Your task to perform on an android device: Search for flights from NYC to Paris Image 0: 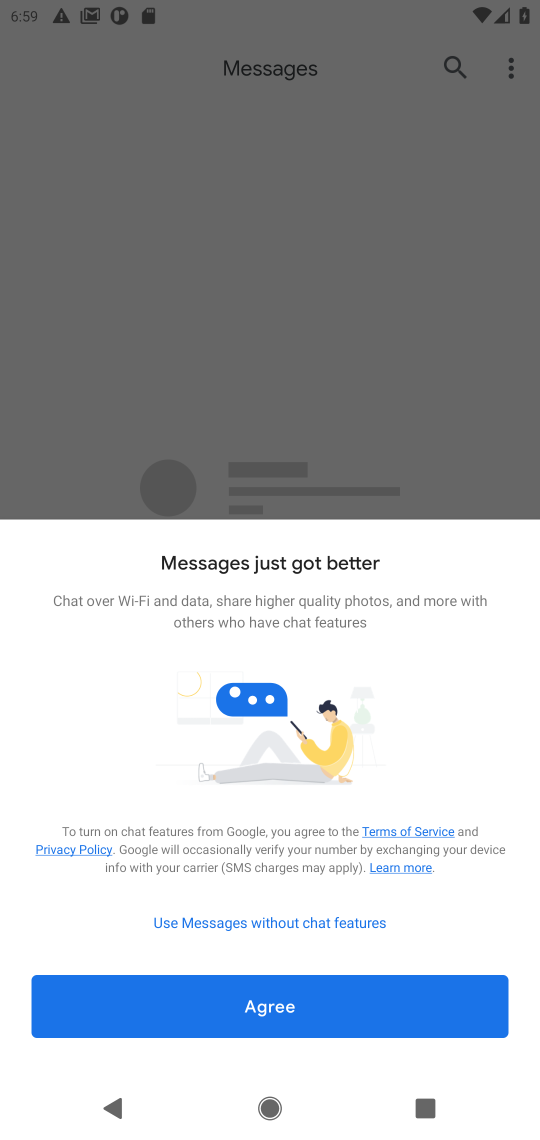
Step 0: press home button
Your task to perform on an android device: Search for flights from NYC to Paris Image 1: 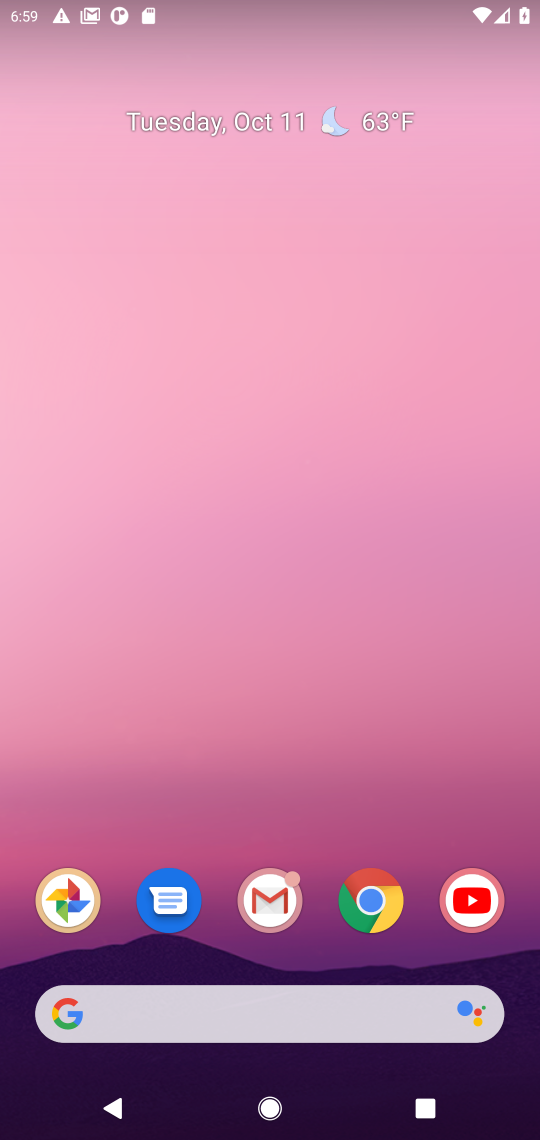
Step 1: click (379, 897)
Your task to perform on an android device: Search for flights from NYC to Paris Image 2: 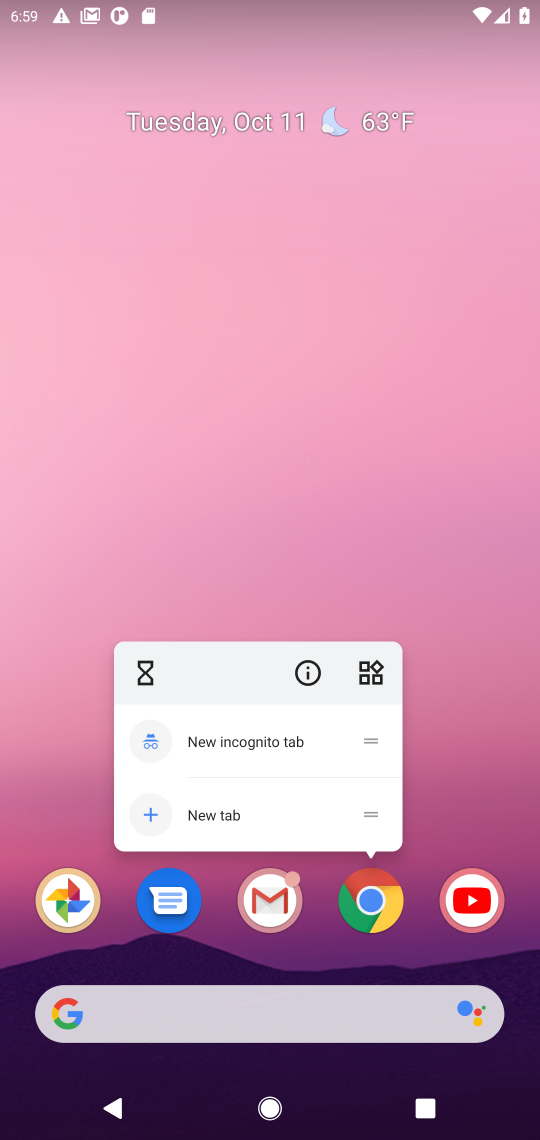
Step 2: click (356, 923)
Your task to perform on an android device: Search for flights from NYC to Paris Image 3: 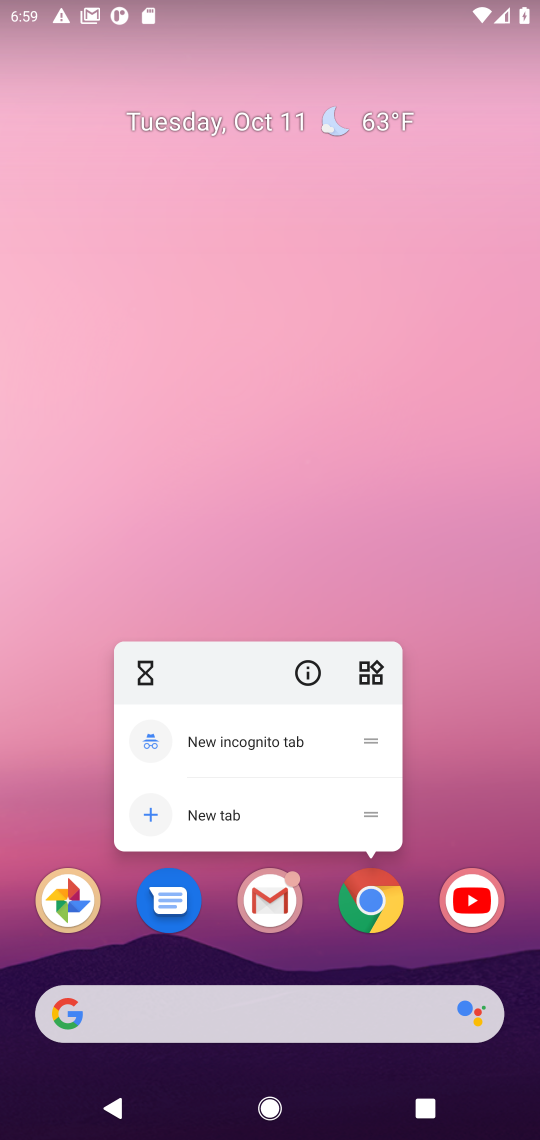
Step 3: click (362, 908)
Your task to perform on an android device: Search for flights from NYC to Paris Image 4: 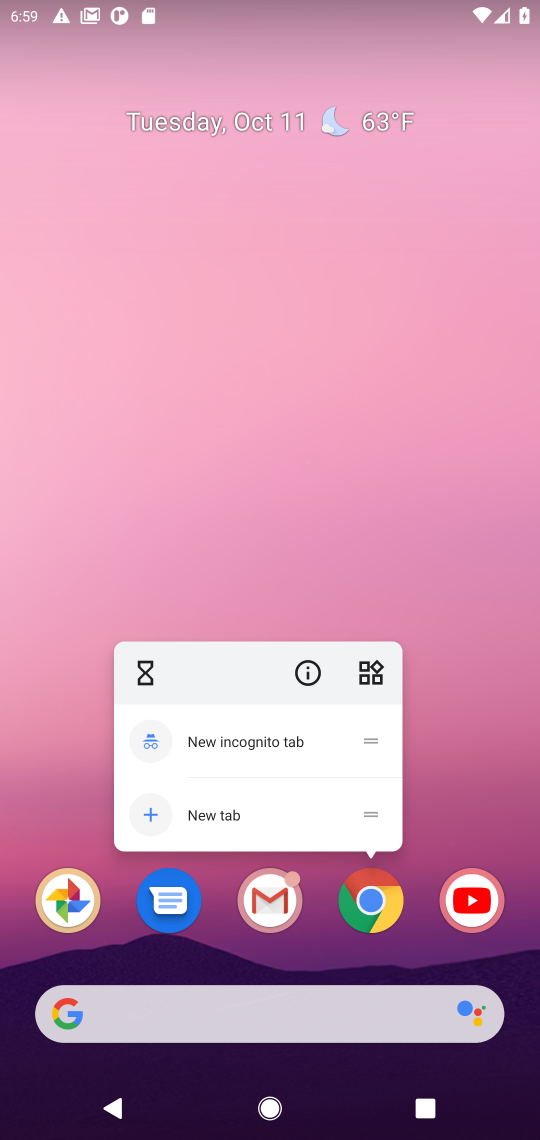
Step 4: click (362, 913)
Your task to perform on an android device: Search for flights from NYC to Paris Image 5: 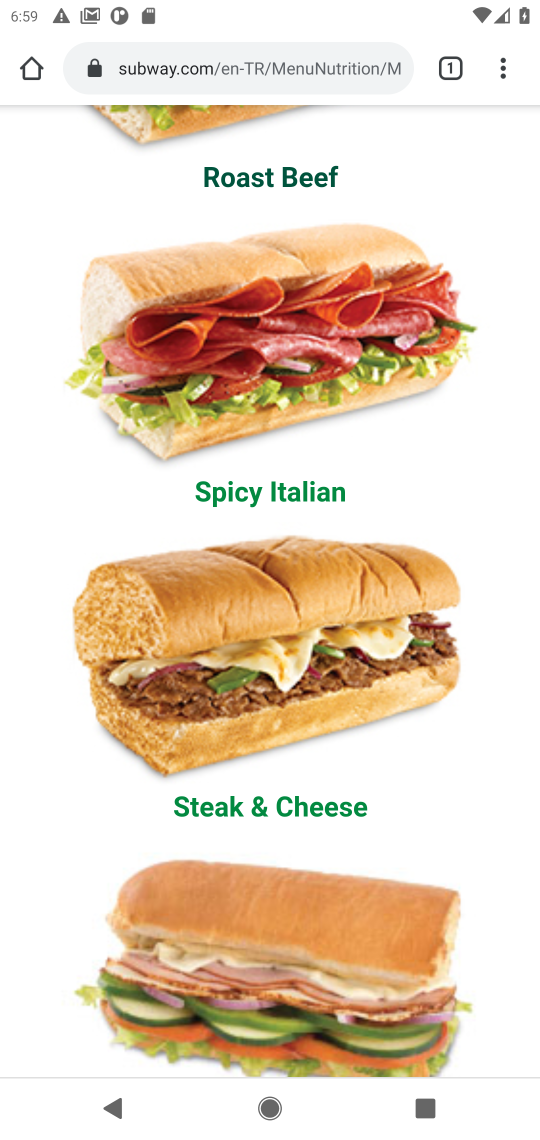
Step 5: click (327, 69)
Your task to perform on an android device: Search for flights from NYC to Paris Image 6: 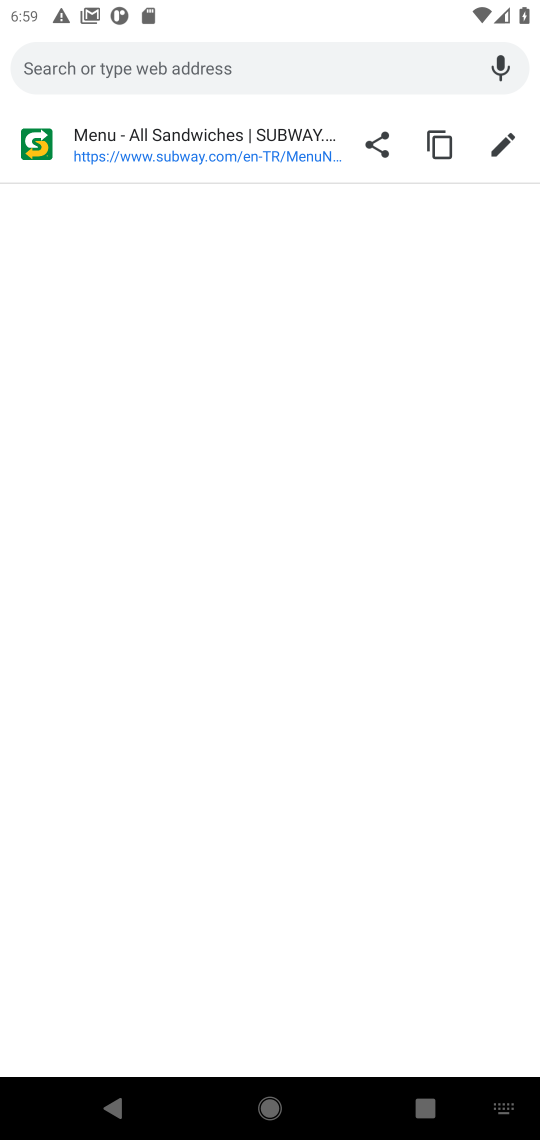
Step 6: type " flights from NYC to Paris"
Your task to perform on an android device: Search for flights from NYC to Paris Image 7: 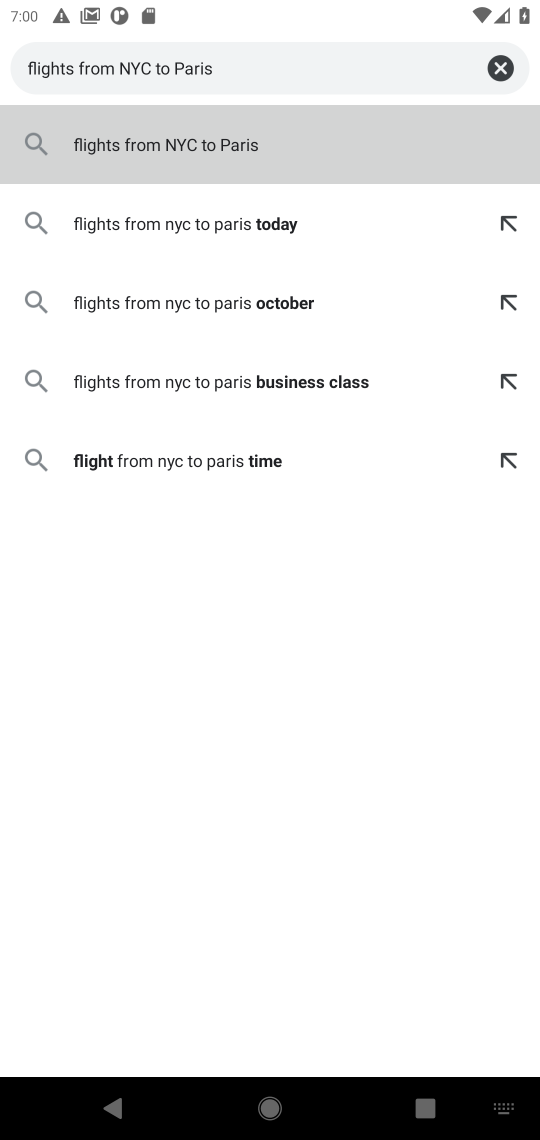
Step 7: press enter
Your task to perform on an android device: Search for flights from NYC to Paris Image 8: 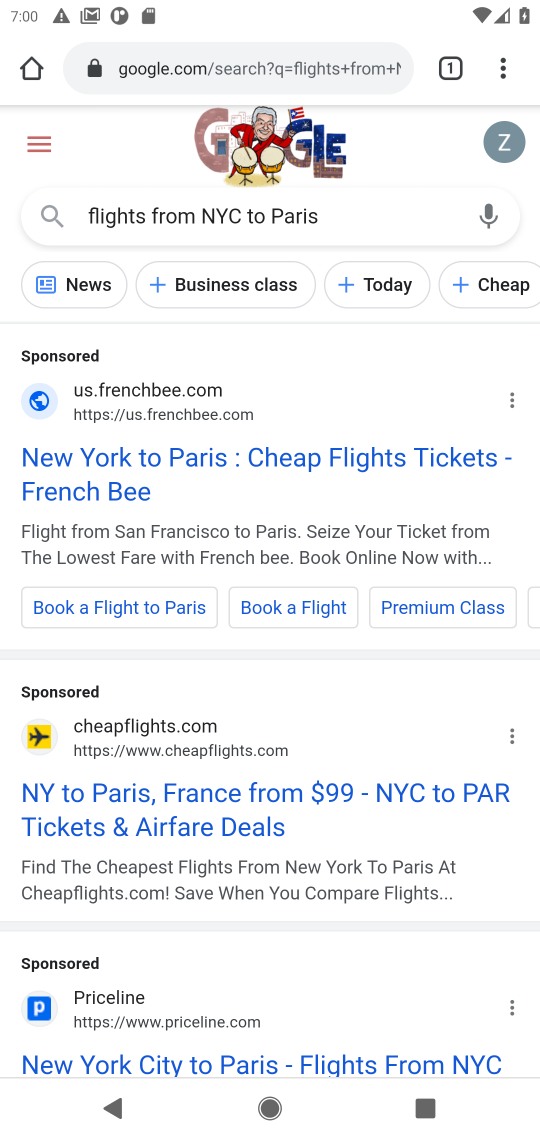
Step 8: drag from (272, 904) to (354, 131)
Your task to perform on an android device: Search for flights from NYC to Paris Image 9: 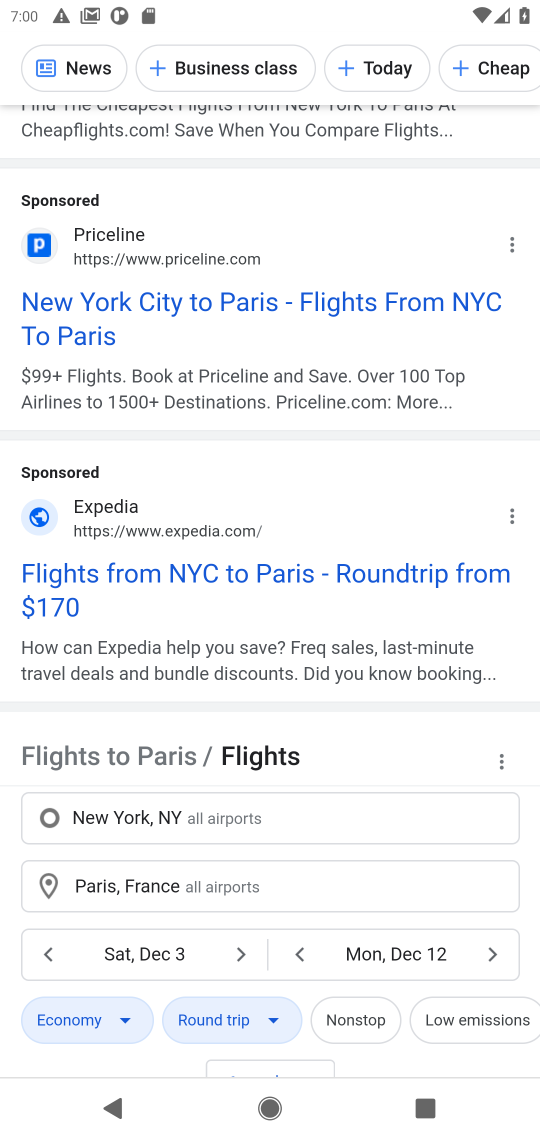
Step 9: drag from (308, 749) to (479, 60)
Your task to perform on an android device: Search for flights from NYC to Paris Image 10: 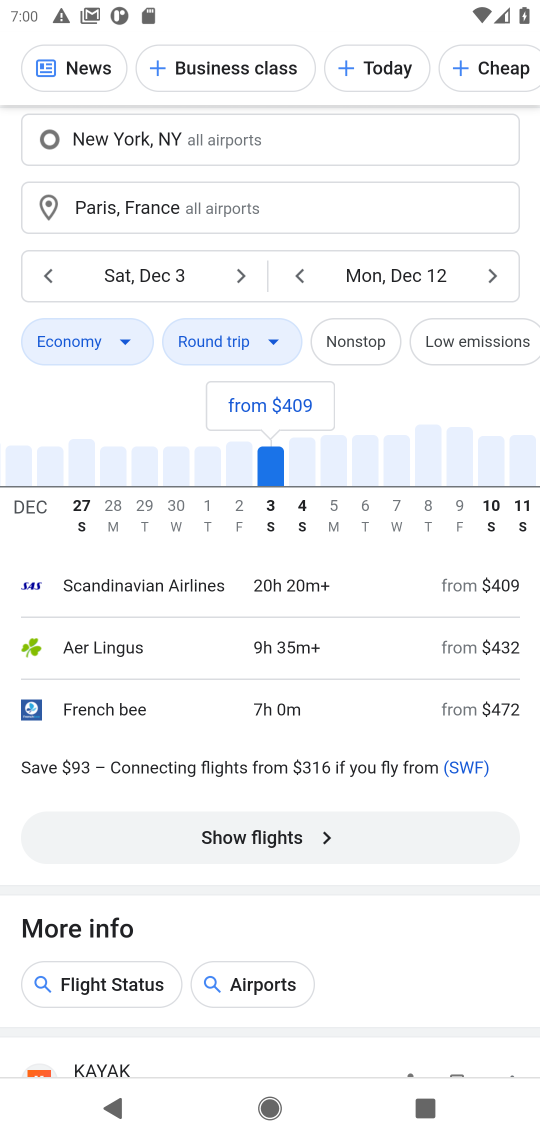
Step 10: click (274, 841)
Your task to perform on an android device: Search for flights from NYC to Paris Image 11: 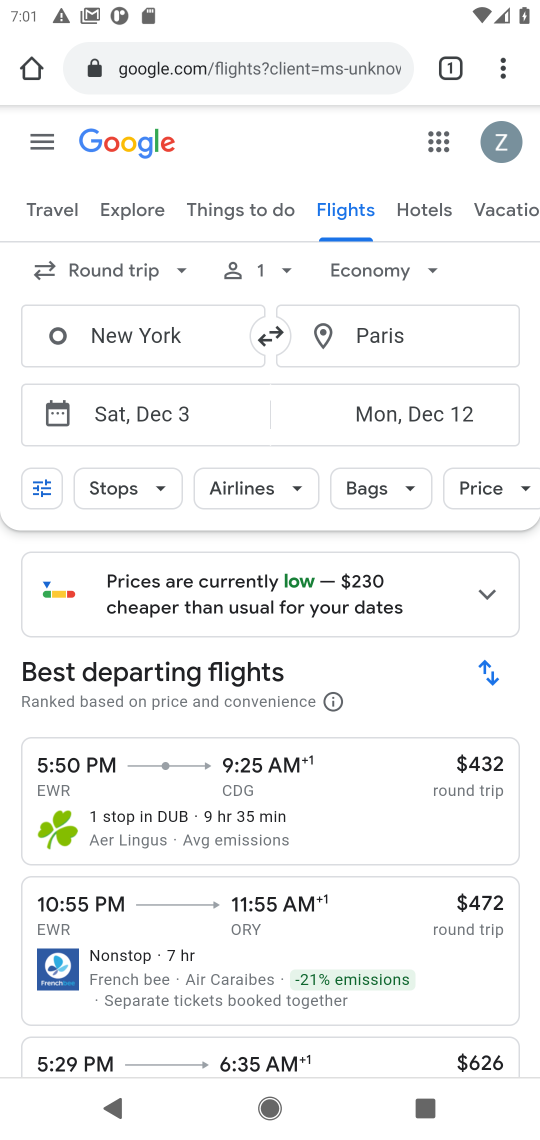
Step 11: task complete